Your task to perform on an android device: turn notification dots on Image 0: 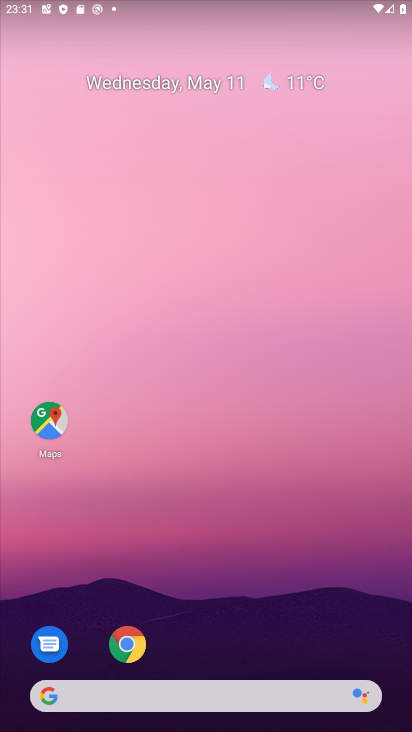
Step 0: drag from (205, 657) to (184, 0)
Your task to perform on an android device: turn notification dots on Image 1: 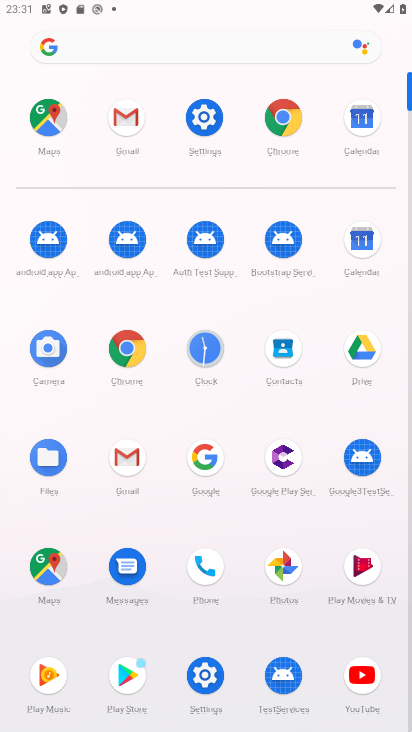
Step 1: click (200, 115)
Your task to perform on an android device: turn notification dots on Image 2: 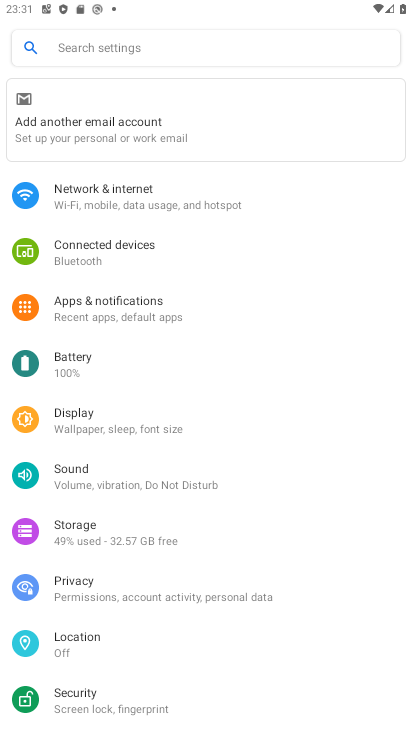
Step 2: click (160, 307)
Your task to perform on an android device: turn notification dots on Image 3: 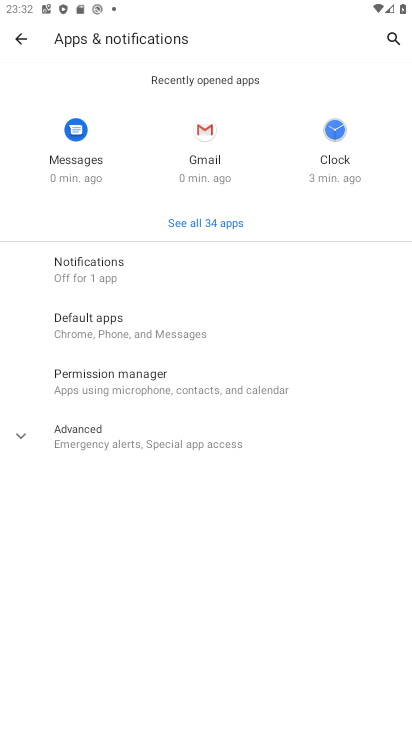
Step 3: click (126, 266)
Your task to perform on an android device: turn notification dots on Image 4: 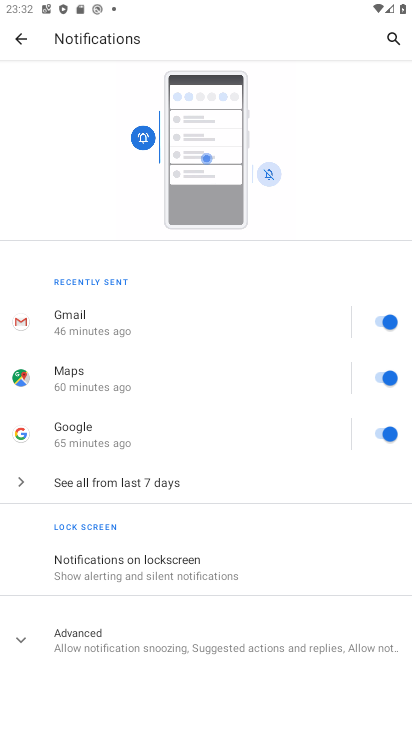
Step 4: click (17, 636)
Your task to perform on an android device: turn notification dots on Image 5: 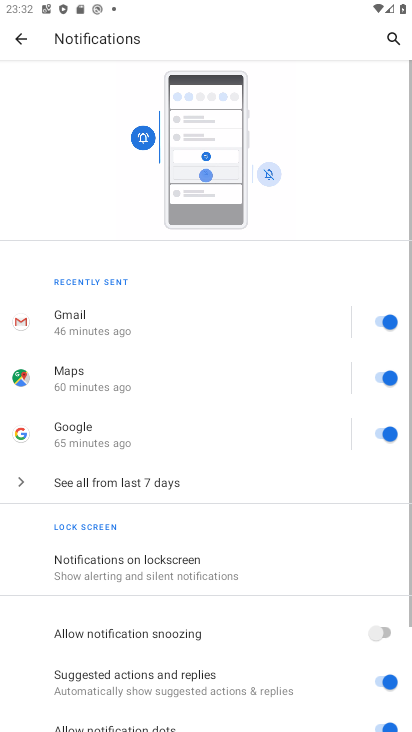
Step 5: task complete